Your task to perform on an android device: Open Amazon Image 0: 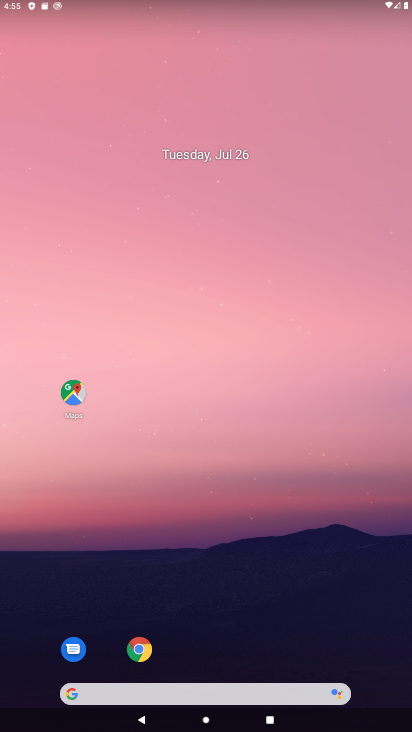
Step 0: click (136, 649)
Your task to perform on an android device: Open Amazon Image 1: 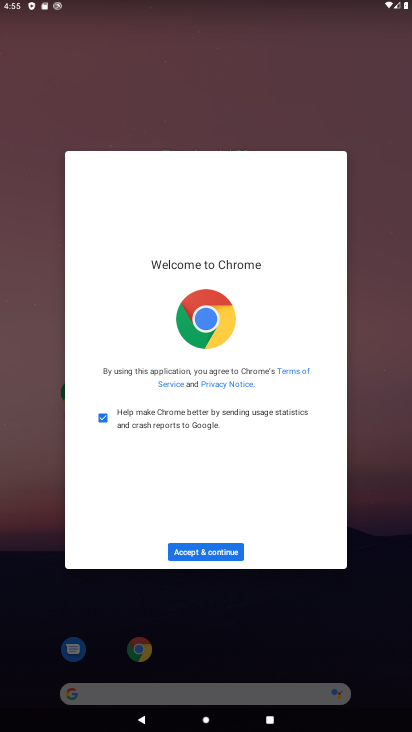
Step 1: click (213, 547)
Your task to perform on an android device: Open Amazon Image 2: 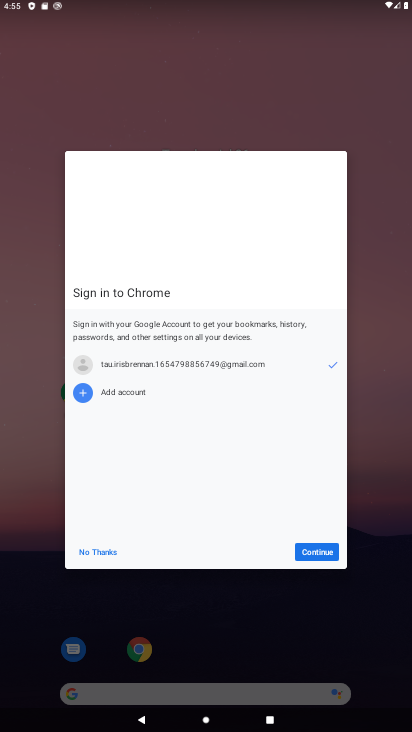
Step 2: click (315, 556)
Your task to perform on an android device: Open Amazon Image 3: 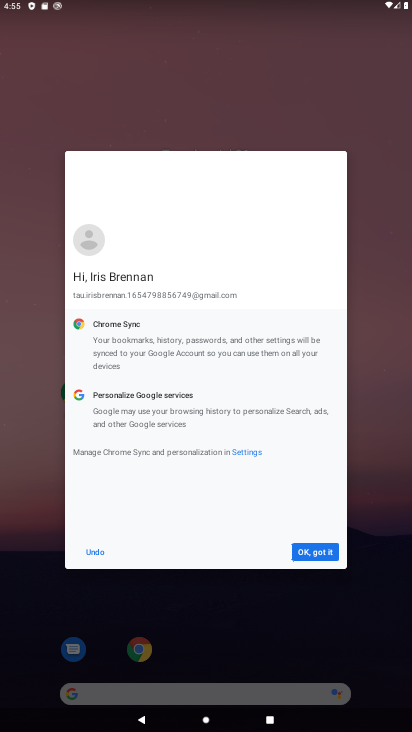
Step 3: click (315, 556)
Your task to perform on an android device: Open Amazon Image 4: 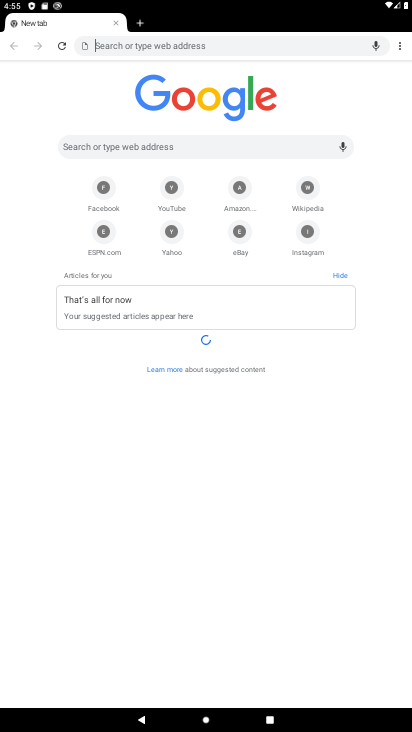
Step 4: click (235, 194)
Your task to perform on an android device: Open Amazon Image 5: 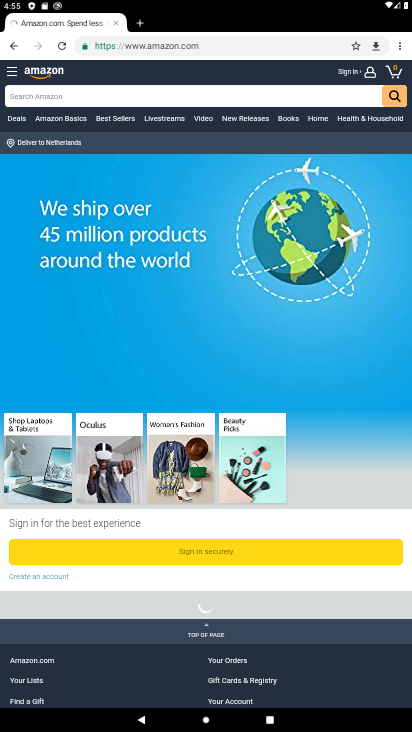
Step 5: task complete